Your task to perform on an android device: Go to CNN.com Image 0: 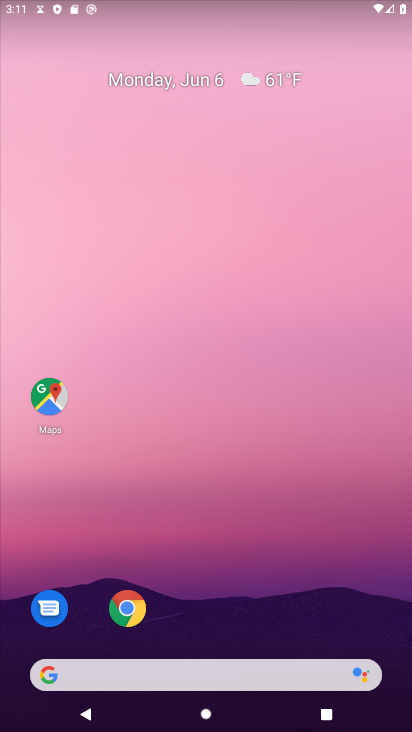
Step 0: click (116, 609)
Your task to perform on an android device: Go to CNN.com Image 1: 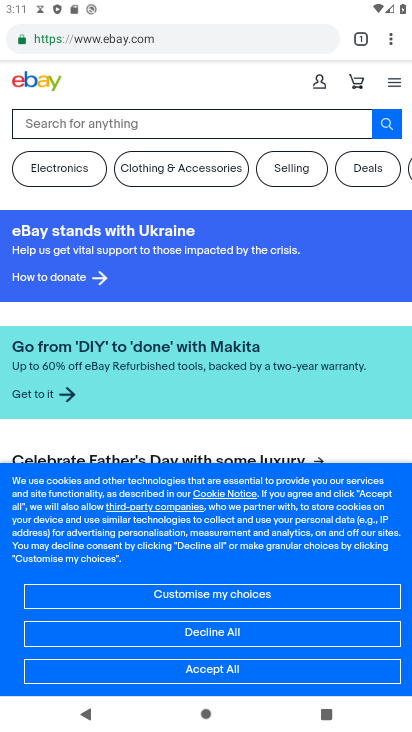
Step 1: click (187, 25)
Your task to perform on an android device: Go to CNN.com Image 2: 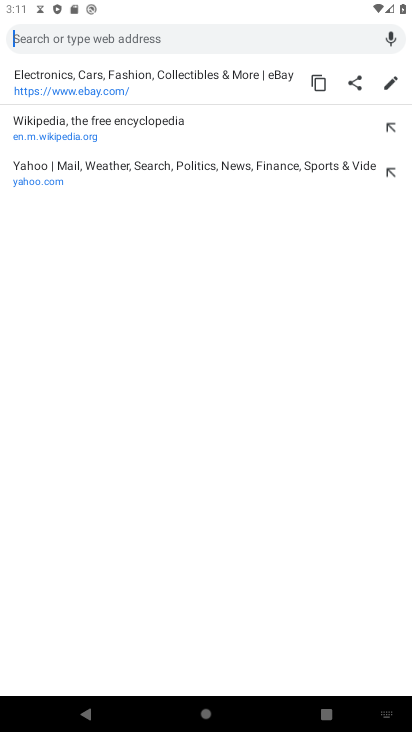
Step 2: type "CNN.com"
Your task to perform on an android device: Go to CNN.com Image 3: 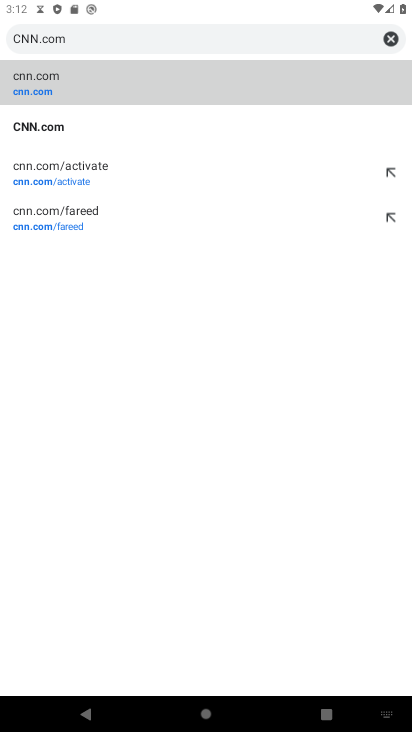
Step 3: click (41, 76)
Your task to perform on an android device: Go to CNN.com Image 4: 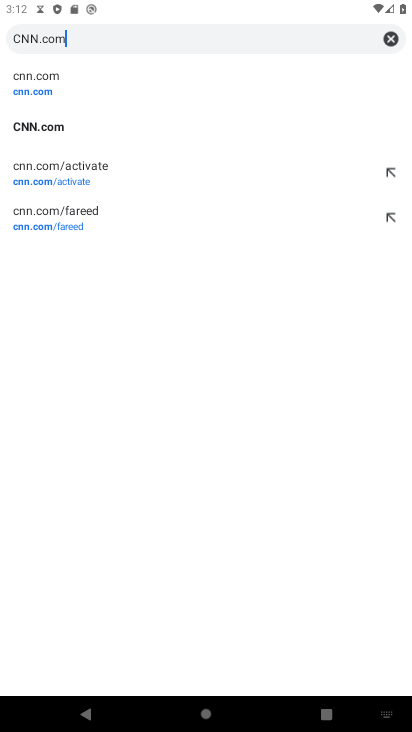
Step 4: click (47, 77)
Your task to perform on an android device: Go to CNN.com Image 5: 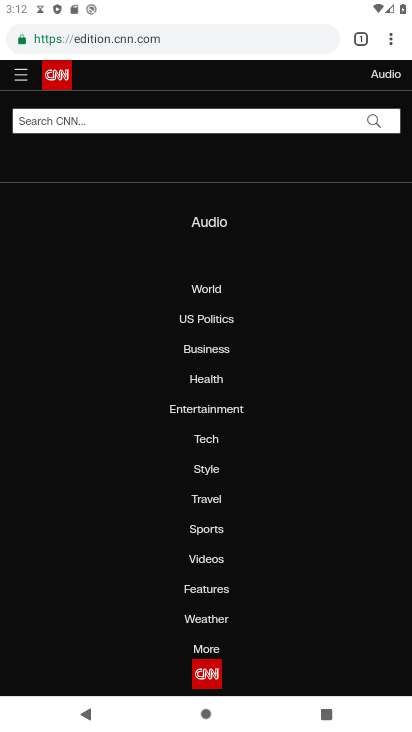
Step 5: task complete